Your task to perform on an android device: delete browsing data in the chrome app Image 0: 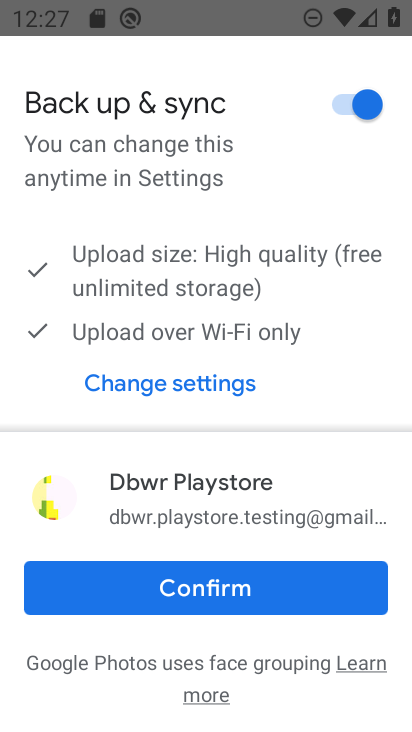
Step 0: press home button
Your task to perform on an android device: delete browsing data in the chrome app Image 1: 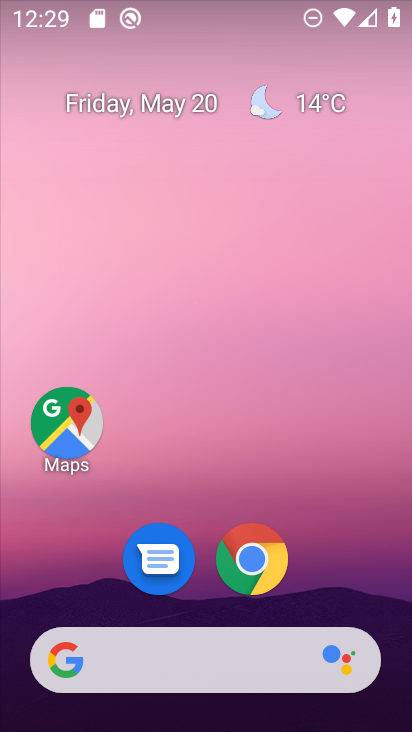
Step 1: click (286, 563)
Your task to perform on an android device: delete browsing data in the chrome app Image 2: 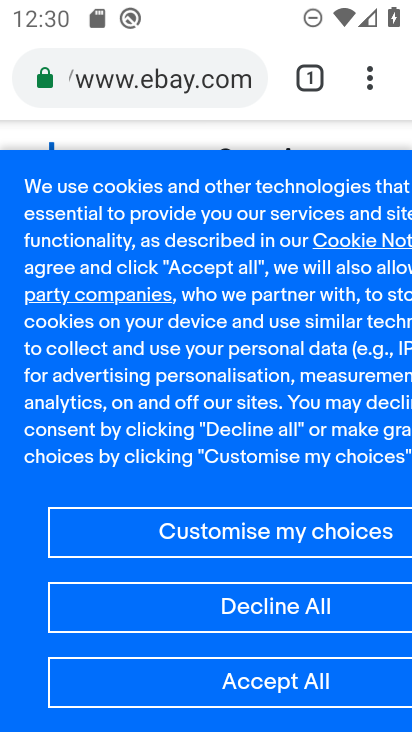
Step 2: click (376, 62)
Your task to perform on an android device: delete browsing data in the chrome app Image 3: 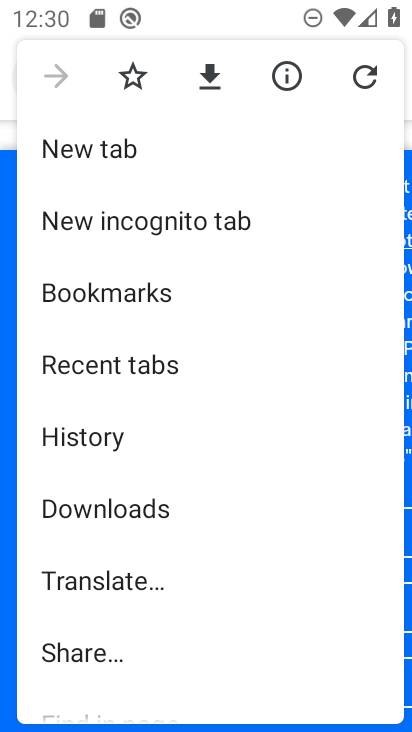
Step 3: drag from (184, 517) to (198, 199)
Your task to perform on an android device: delete browsing data in the chrome app Image 4: 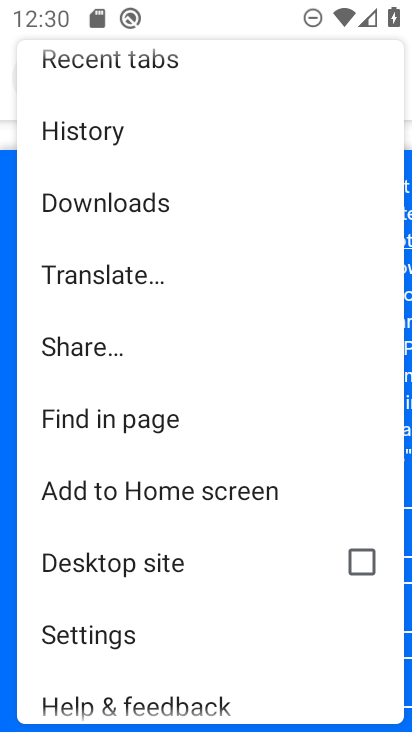
Step 4: click (141, 626)
Your task to perform on an android device: delete browsing data in the chrome app Image 5: 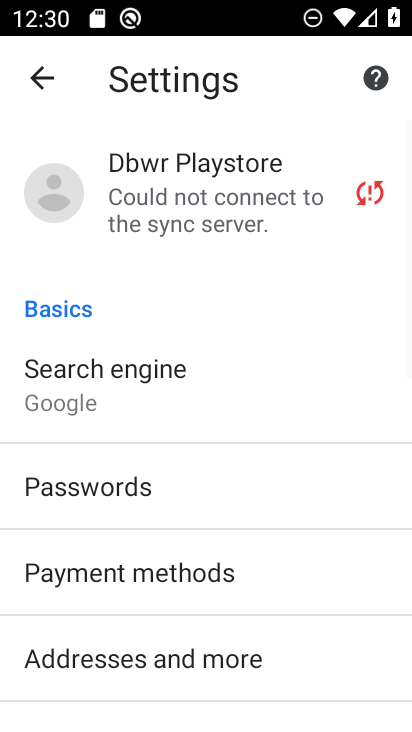
Step 5: task complete